Your task to perform on an android device: Open Chrome and go to settings Image 0: 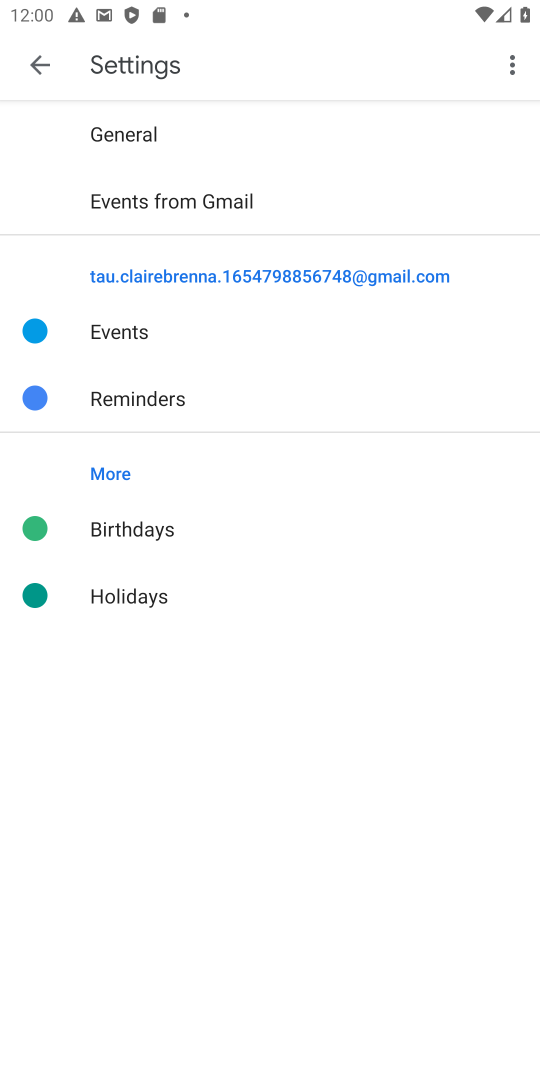
Step 0: press home button
Your task to perform on an android device: Open Chrome and go to settings Image 1: 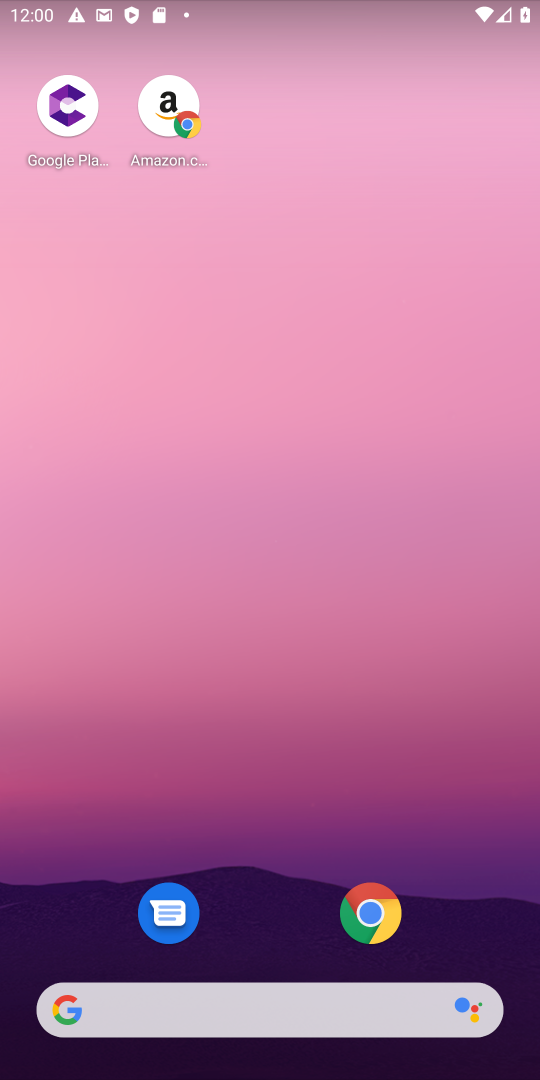
Step 1: click (382, 912)
Your task to perform on an android device: Open Chrome and go to settings Image 2: 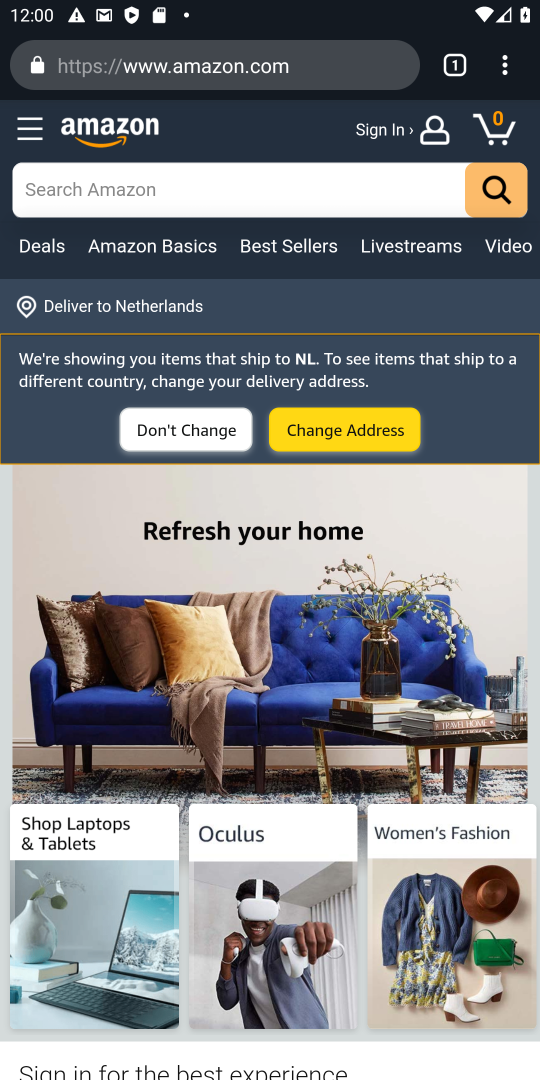
Step 2: click (510, 62)
Your task to perform on an android device: Open Chrome and go to settings Image 3: 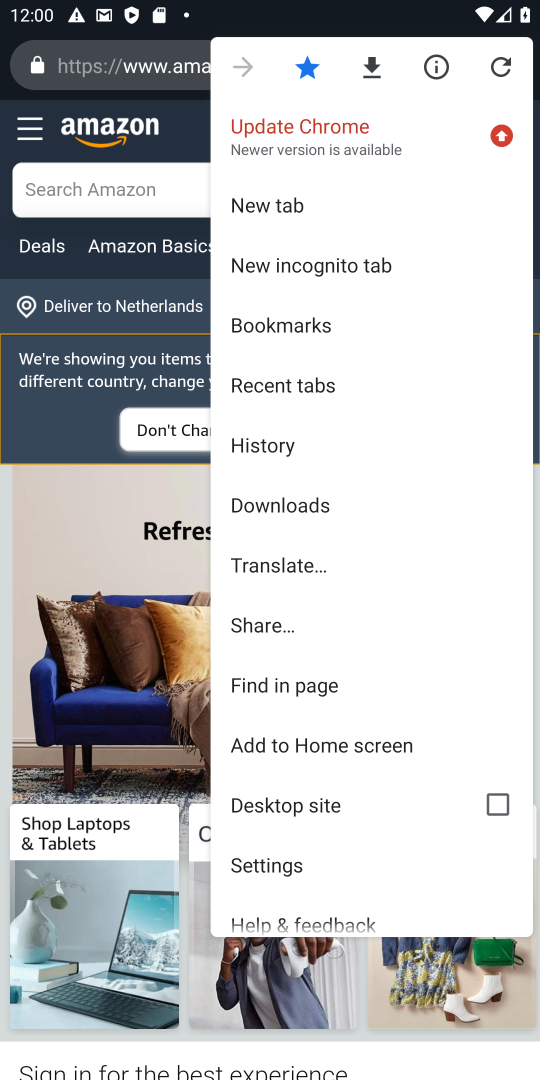
Step 3: click (283, 856)
Your task to perform on an android device: Open Chrome and go to settings Image 4: 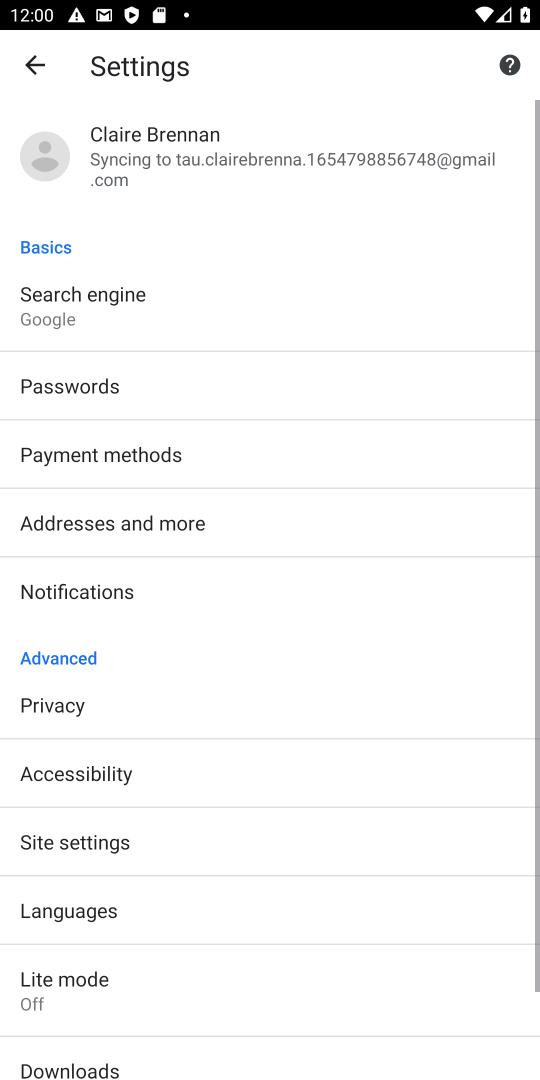
Step 4: task complete